Your task to perform on an android device: Search for "jbl flip 4" on bestbuy.com, select the first entry, add it to the cart, then select checkout. Image 0: 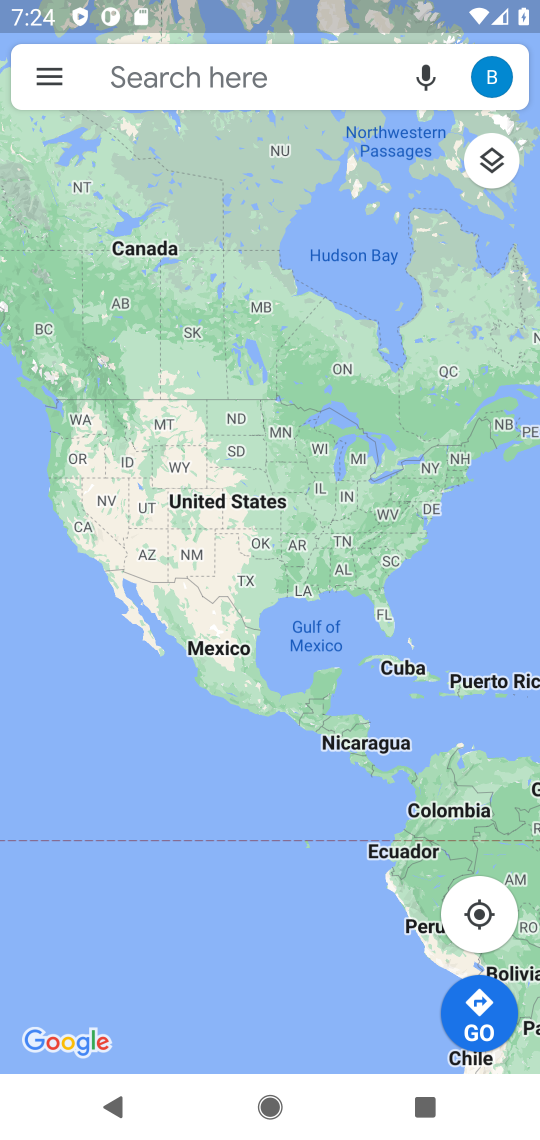
Step 0: press home button
Your task to perform on an android device: Search for "jbl flip 4" on bestbuy.com, select the first entry, add it to the cart, then select checkout. Image 1: 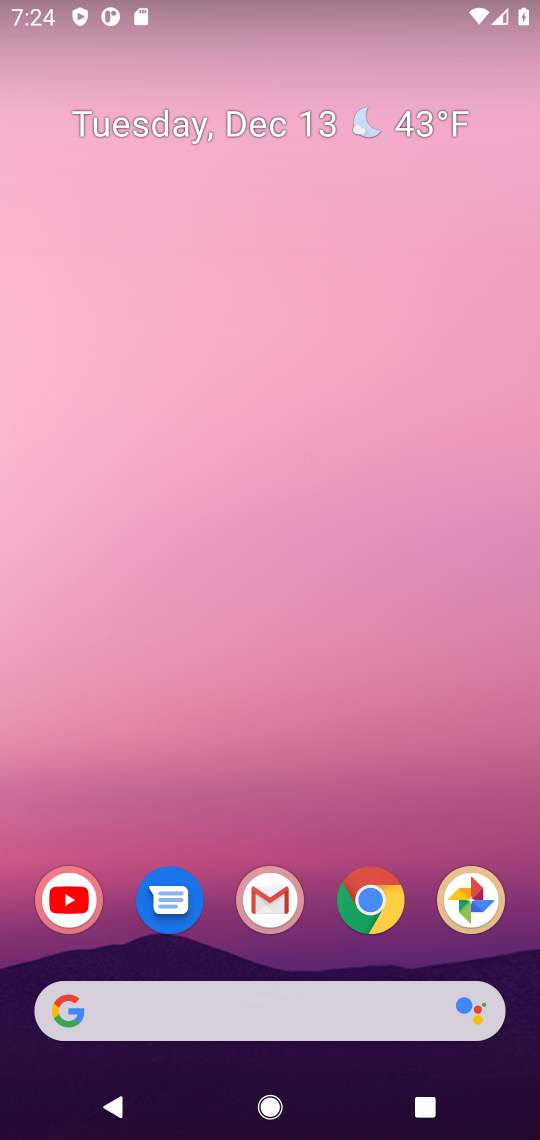
Step 1: click (373, 910)
Your task to perform on an android device: Search for "jbl flip 4" on bestbuy.com, select the first entry, add it to the cart, then select checkout. Image 2: 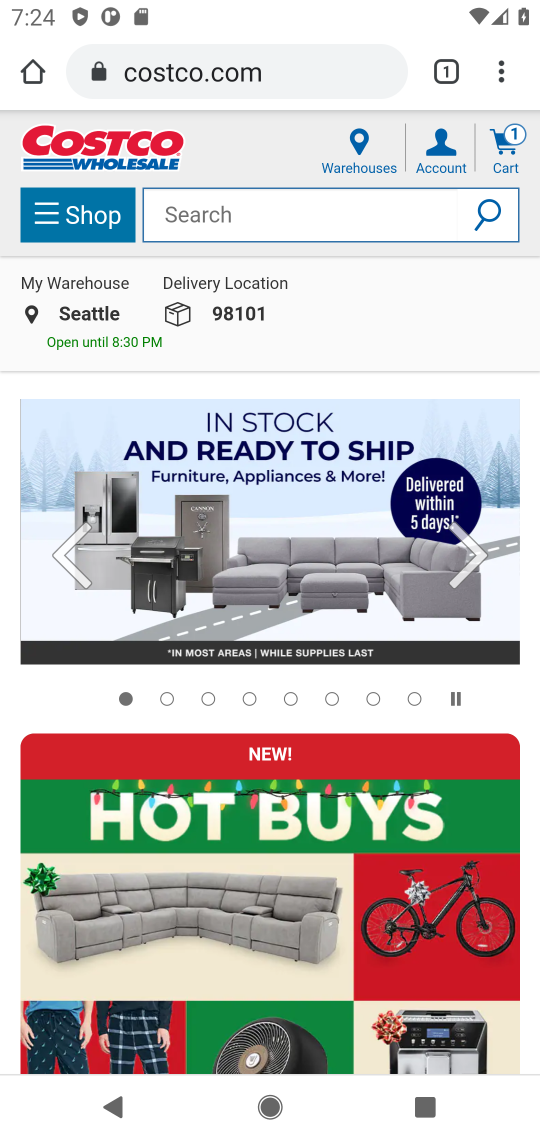
Step 2: click (241, 73)
Your task to perform on an android device: Search for "jbl flip 4" on bestbuy.com, select the first entry, add it to the cart, then select checkout. Image 3: 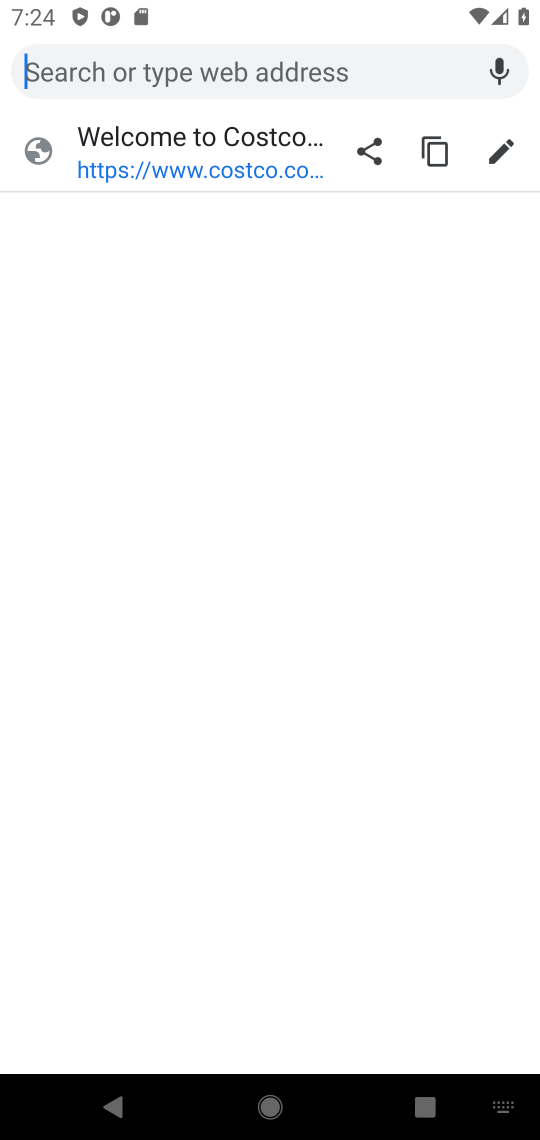
Step 3: type "bestbuy"
Your task to perform on an android device: Search for "jbl flip 4" on bestbuy.com, select the first entry, add it to the cart, then select checkout. Image 4: 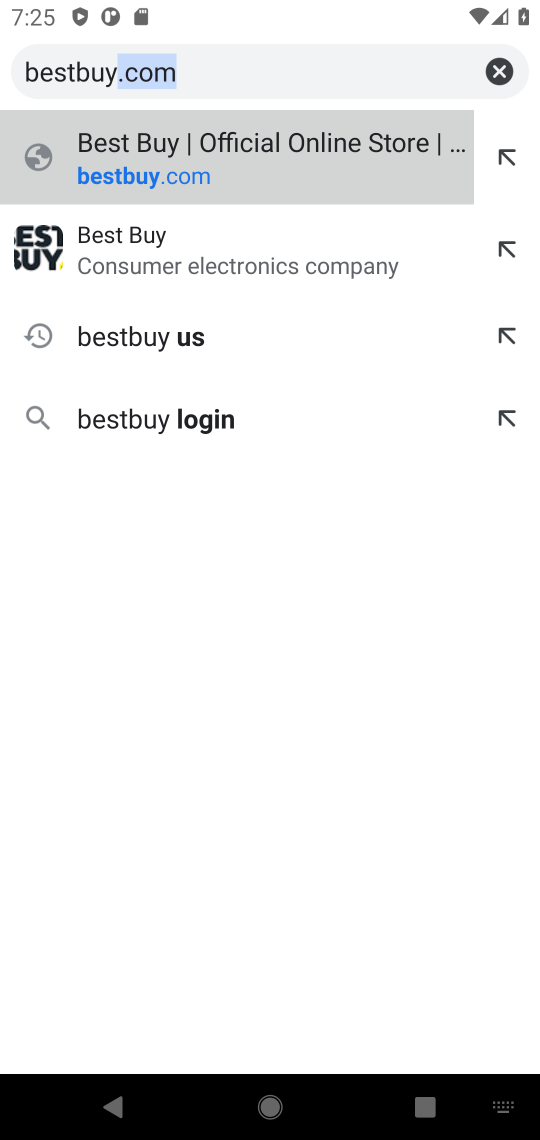
Step 4: click (175, 152)
Your task to perform on an android device: Search for "jbl flip 4" on bestbuy.com, select the first entry, add it to the cart, then select checkout. Image 5: 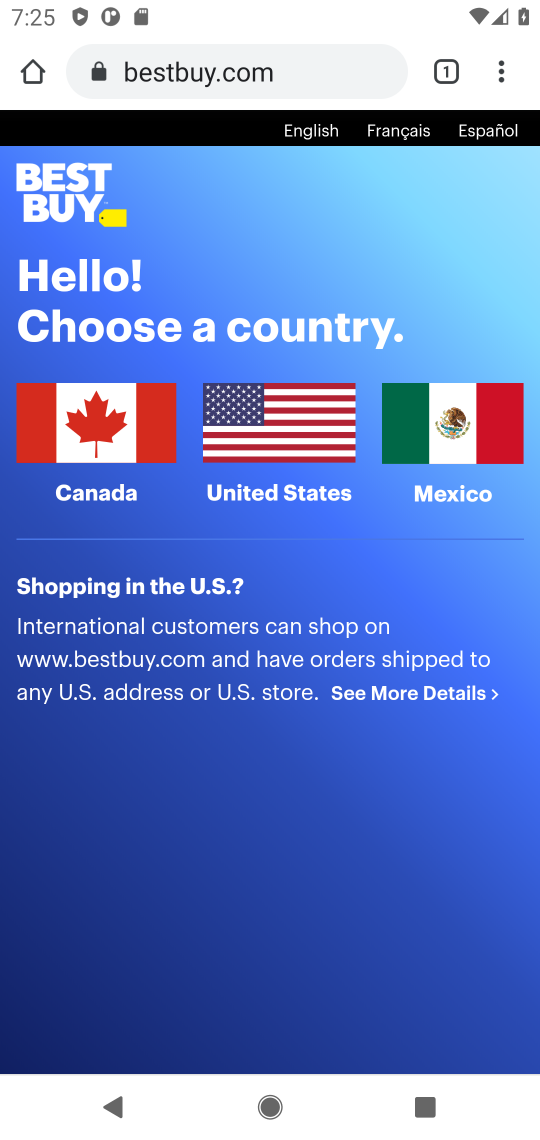
Step 5: click (315, 421)
Your task to perform on an android device: Search for "jbl flip 4" on bestbuy.com, select the first entry, add it to the cart, then select checkout. Image 6: 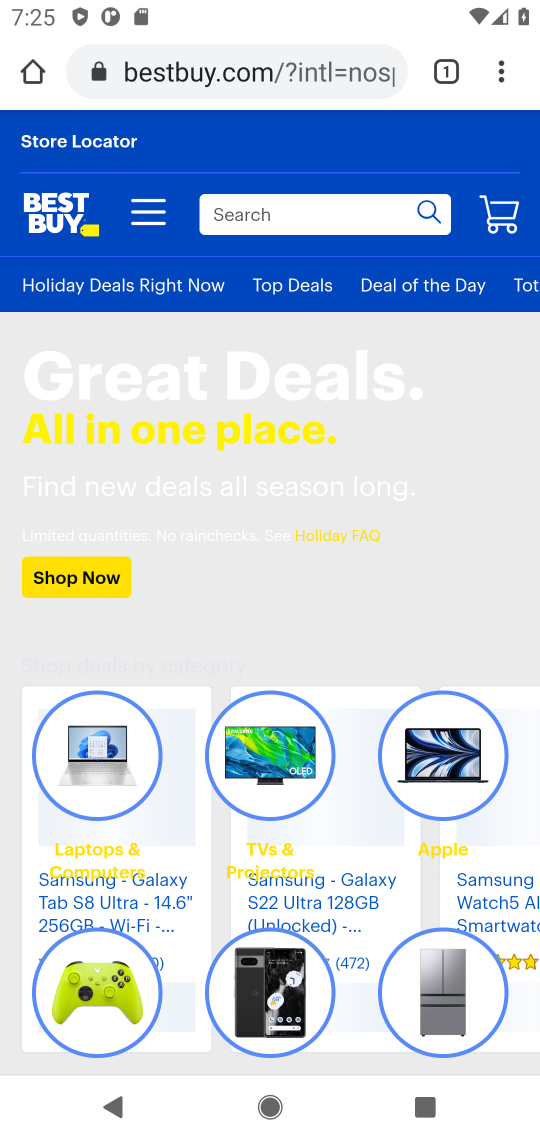
Step 6: click (331, 211)
Your task to perform on an android device: Search for "jbl flip 4" on bestbuy.com, select the first entry, add it to the cart, then select checkout. Image 7: 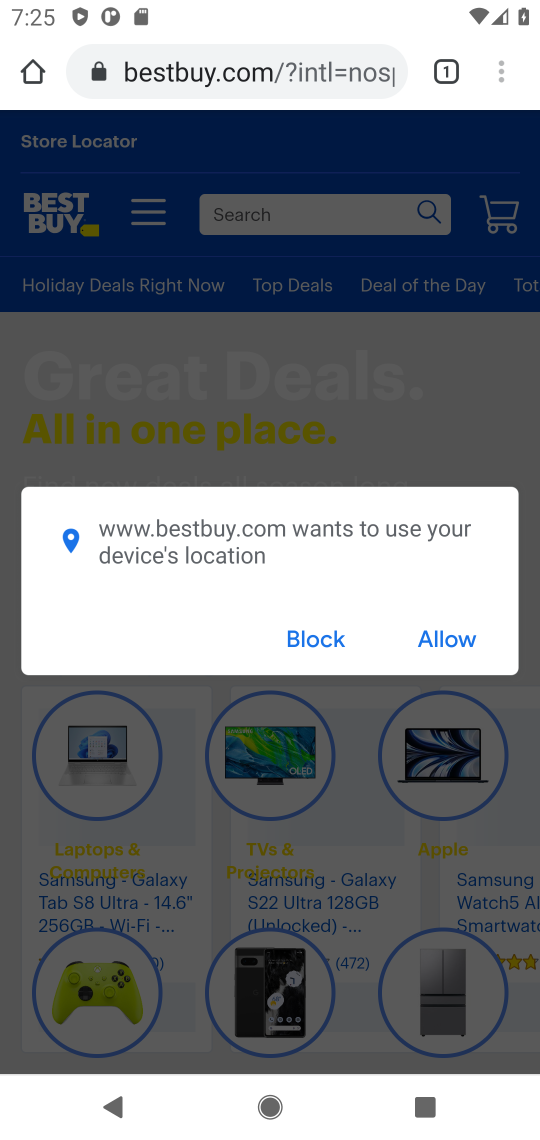
Step 7: click (318, 647)
Your task to perform on an android device: Search for "jbl flip 4" on bestbuy.com, select the first entry, add it to the cart, then select checkout. Image 8: 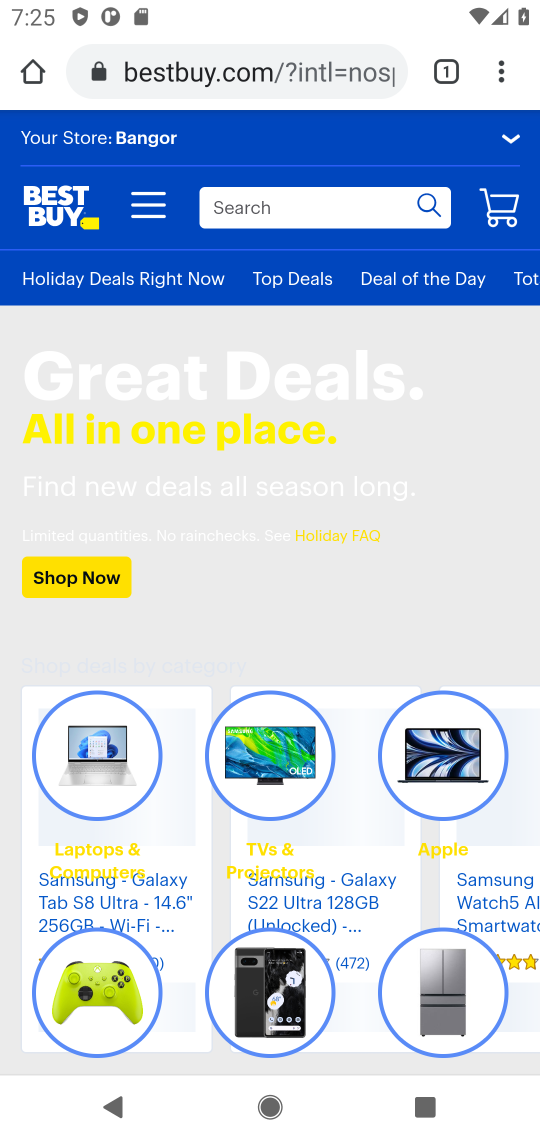
Step 8: click (301, 212)
Your task to perform on an android device: Search for "jbl flip 4" on bestbuy.com, select the first entry, add it to the cart, then select checkout. Image 9: 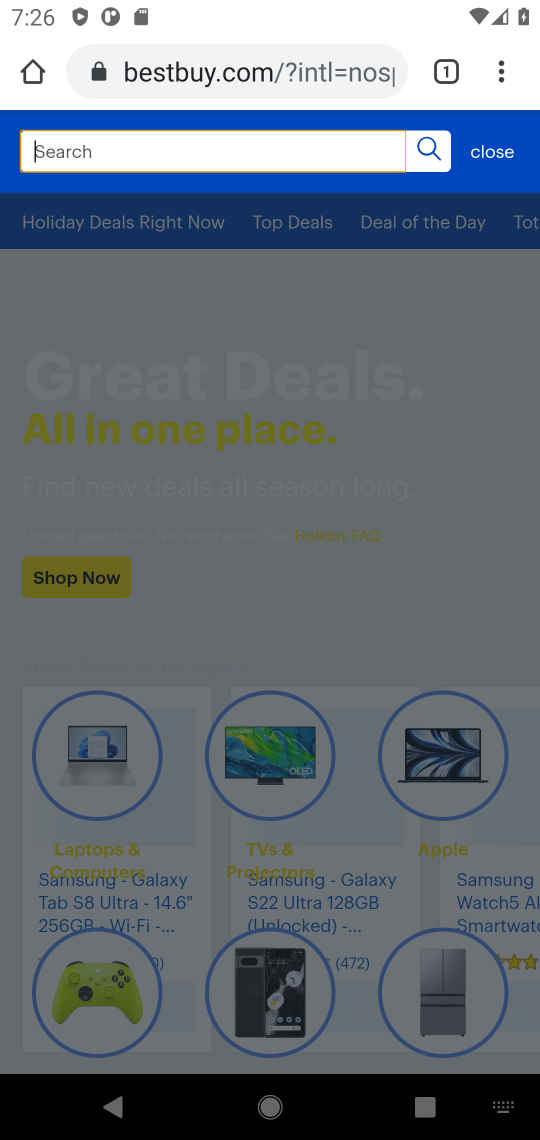
Step 9: type "jbl flip 4"
Your task to perform on an android device: Search for "jbl flip 4" on bestbuy.com, select the first entry, add it to the cart, then select checkout. Image 10: 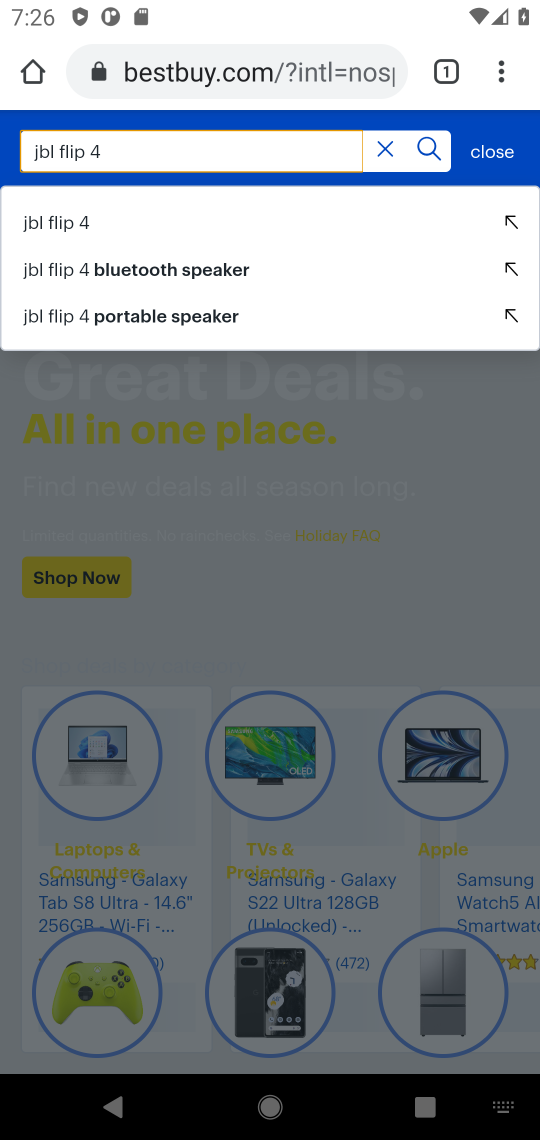
Step 10: click (96, 226)
Your task to perform on an android device: Search for "jbl flip 4" on bestbuy.com, select the first entry, add it to the cart, then select checkout. Image 11: 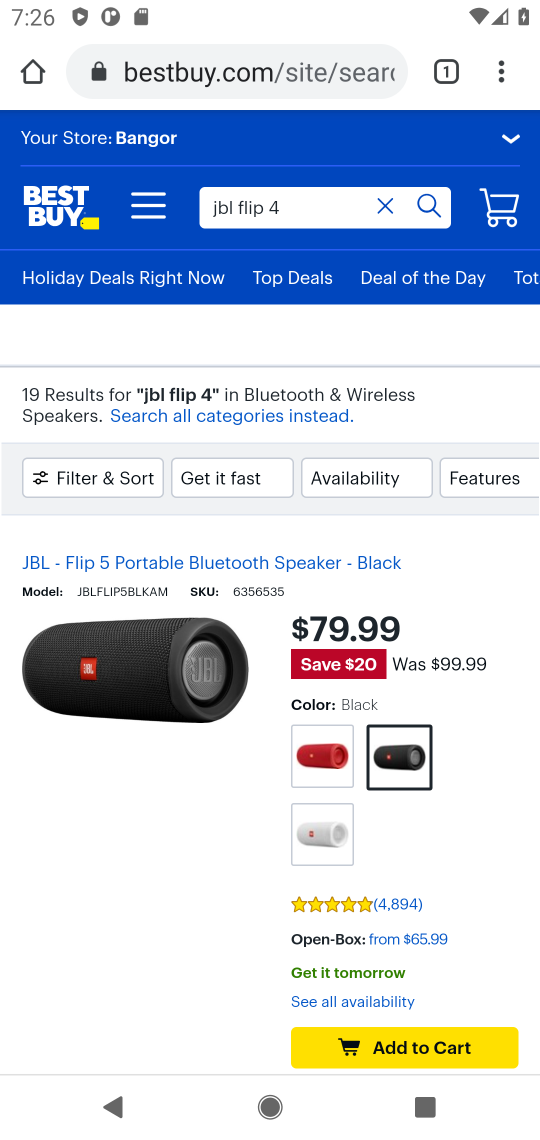
Step 11: click (417, 1046)
Your task to perform on an android device: Search for "jbl flip 4" on bestbuy.com, select the first entry, add it to the cart, then select checkout. Image 12: 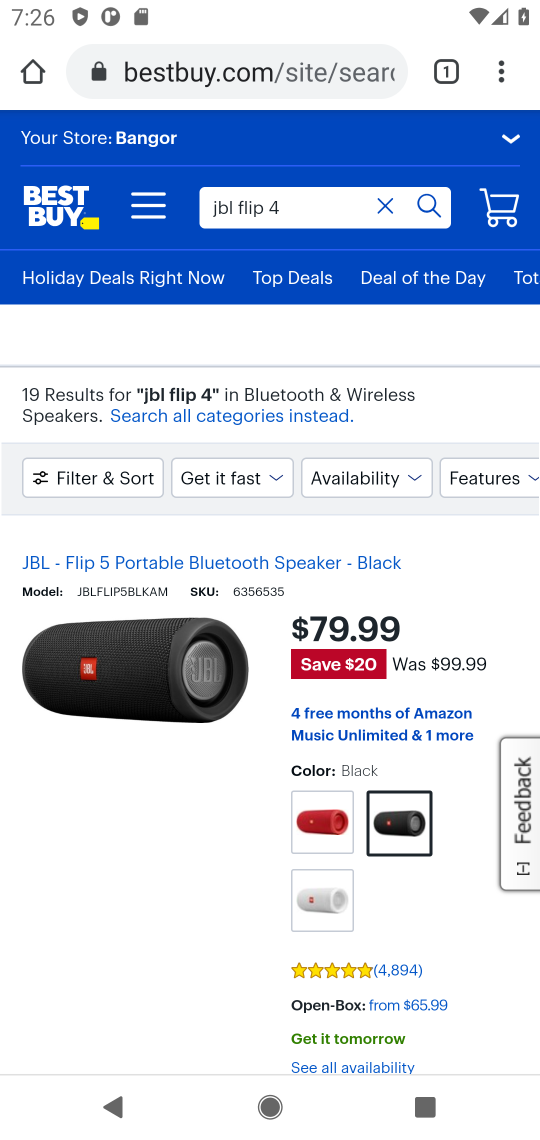
Step 12: drag from (464, 900) to (432, 343)
Your task to perform on an android device: Search for "jbl flip 4" on bestbuy.com, select the first entry, add it to the cart, then select checkout. Image 13: 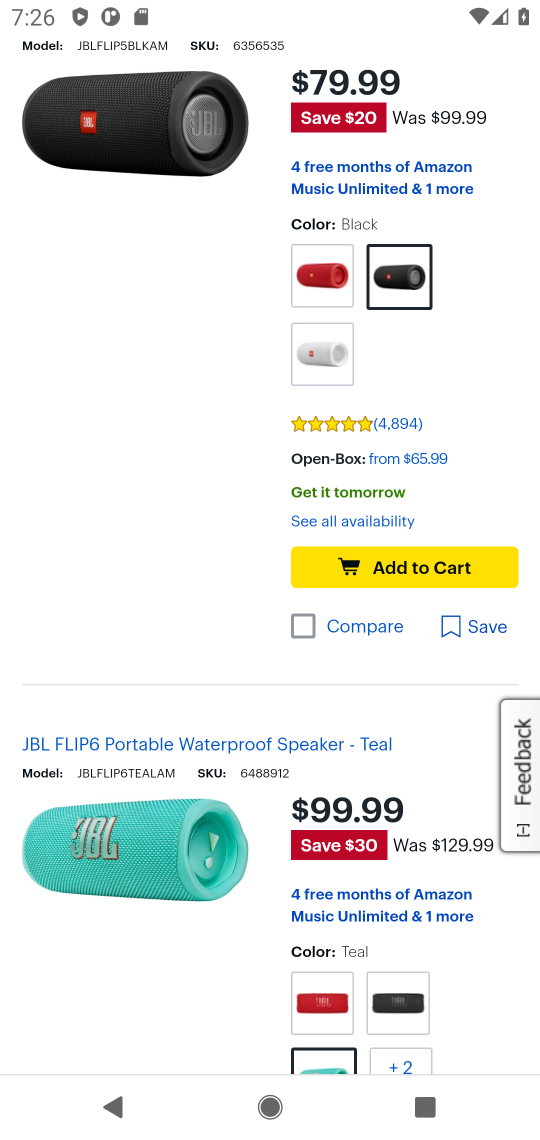
Step 13: click (435, 568)
Your task to perform on an android device: Search for "jbl flip 4" on bestbuy.com, select the first entry, add it to the cart, then select checkout. Image 14: 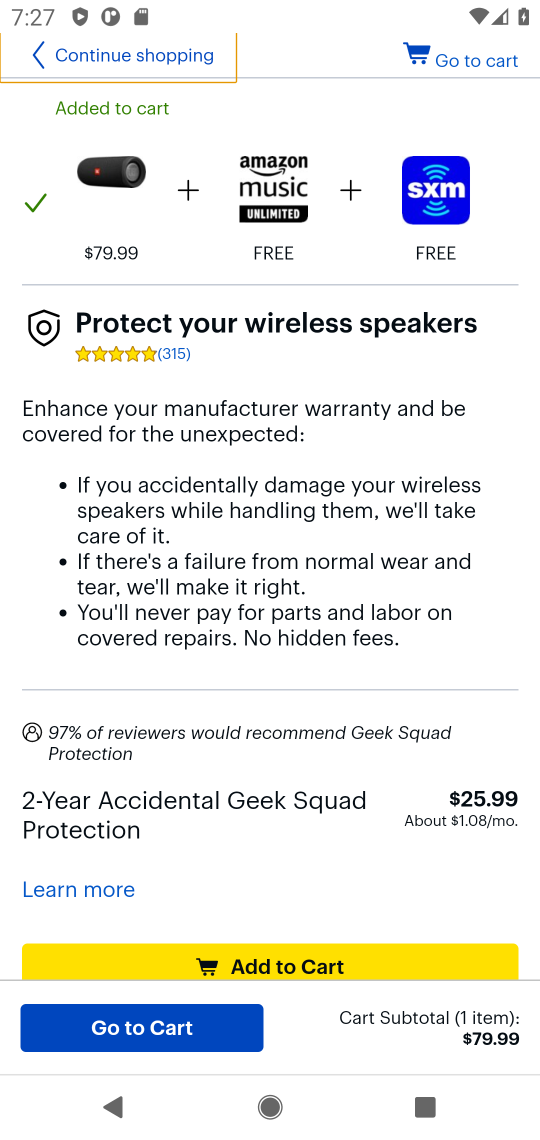
Step 14: click (162, 1032)
Your task to perform on an android device: Search for "jbl flip 4" on bestbuy.com, select the first entry, add it to the cart, then select checkout. Image 15: 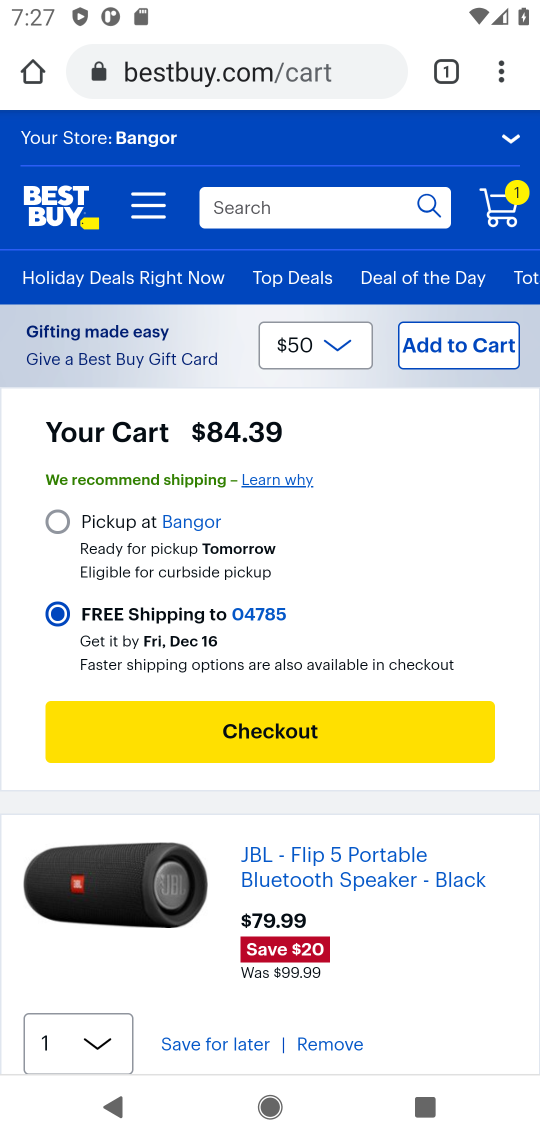
Step 15: click (293, 733)
Your task to perform on an android device: Search for "jbl flip 4" on bestbuy.com, select the first entry, add it to the cart, then select checkout. Image 16: 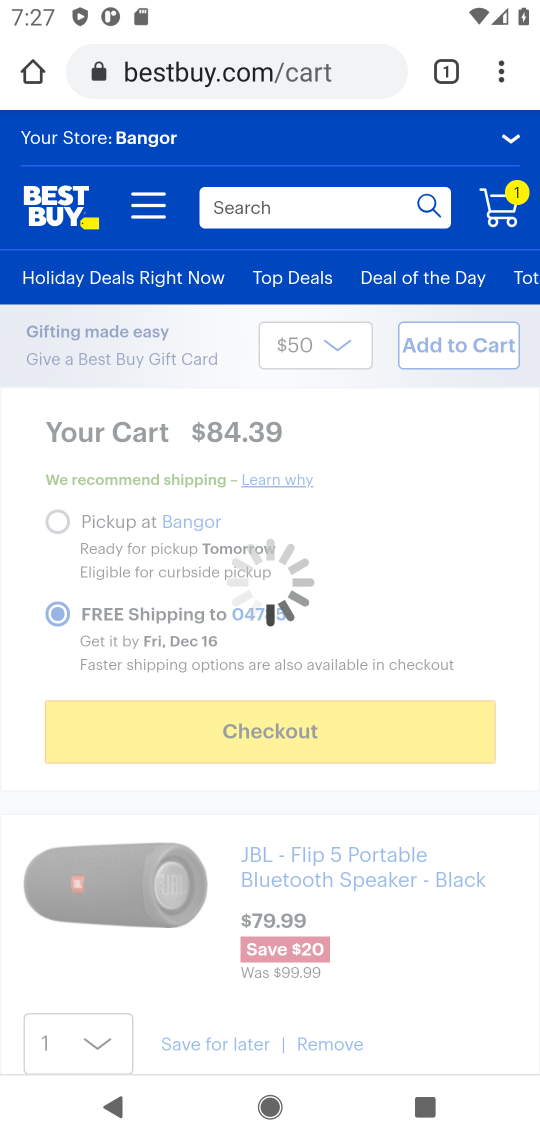
Step 16: task complete